Your task to perform on an android device: change the clock display to analog Image 0: 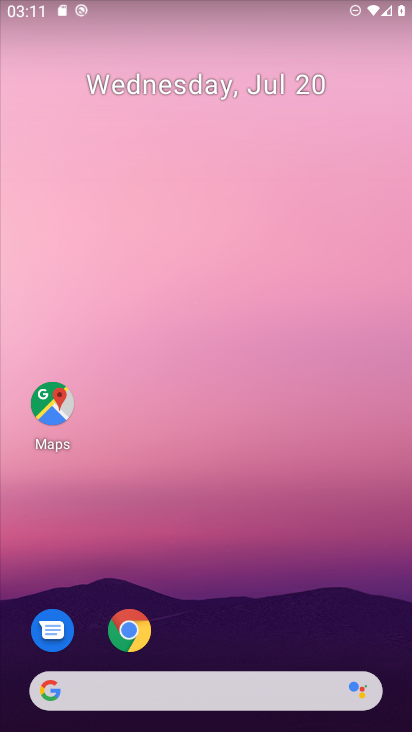
Step 0: drag from (282, 621) to (357, 109)
Your task to perform on an android device: change the clock display to analog Image 1: 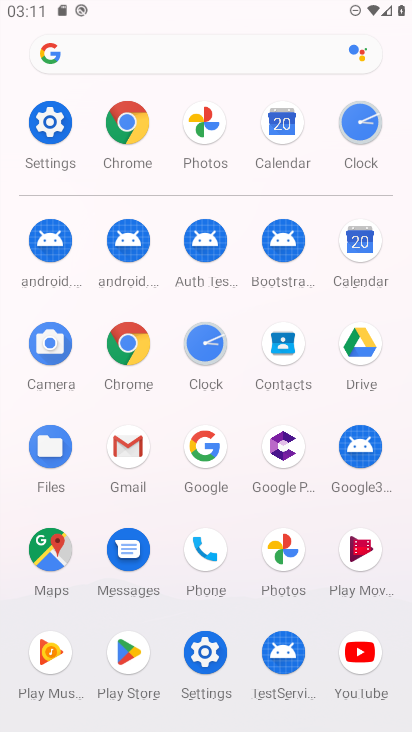
Step 1: click (216, 342)
Your task to perform on an android device: change the clock display to analog Image 2: 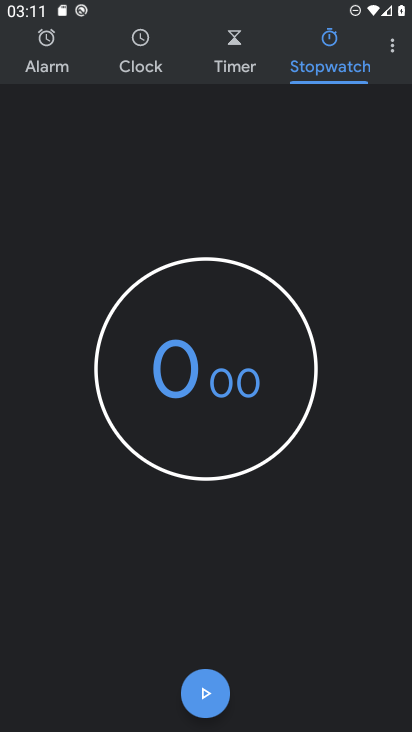
Step 2: click (391, 54)
Your task to perform on an android device: change the clock display to analog Image 3: 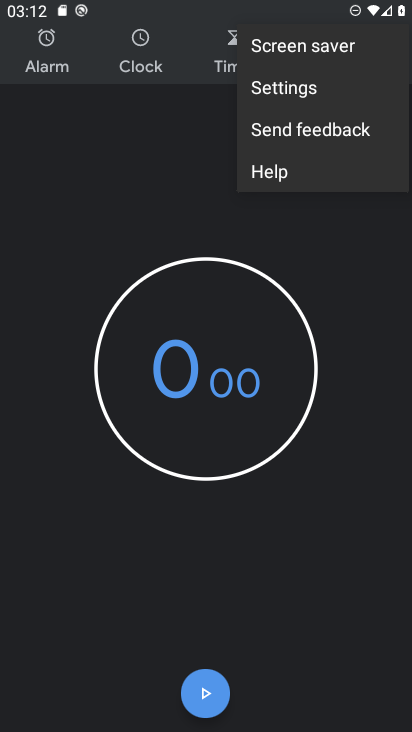
Step 3: click (347, 92)
Your task to perform on an android device: change the clock display to analog Image 4: 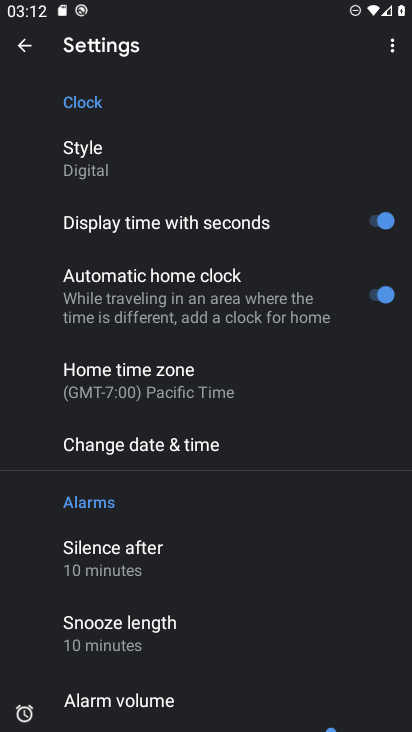
Step 4: drag from (339, 531) to (357, 443)
Your task to perform on an android device: change the clock display to analog Image 5: 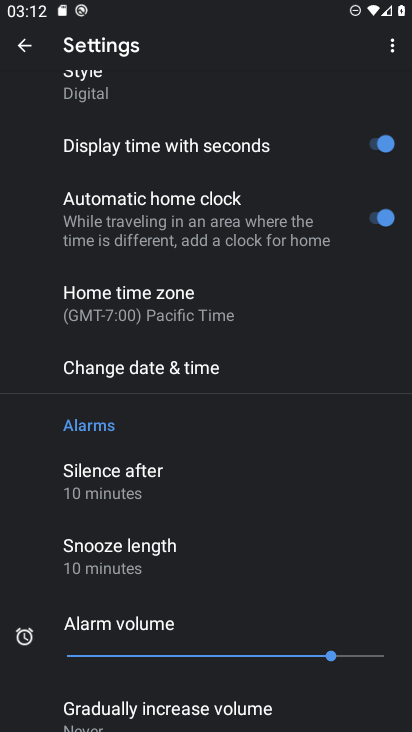
Step 5: drag from (327, 527) to (342, 446)
Your task to perform on an android device: change the clock display to analog Image 6: 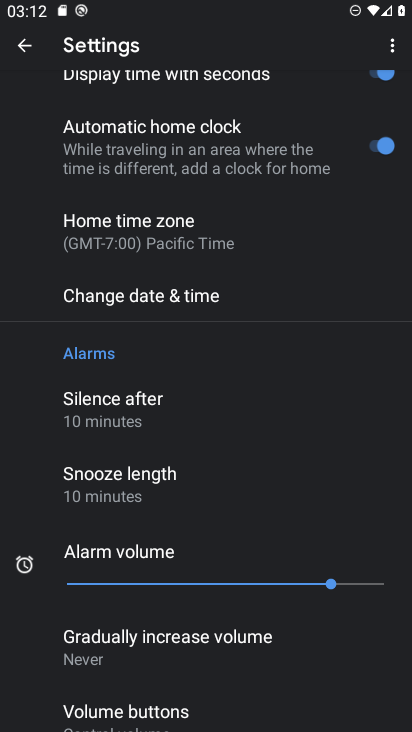
Step 6: drag from (309, 613) to (320, 532)
Your task to perform on an android device: change the clock display to analog Image 7: 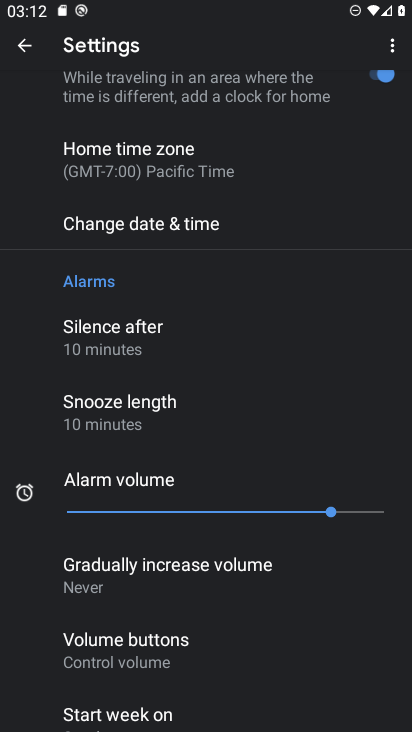
Step 7: drag from (311, 618) to (316, 552)
Your task to perform on an android device: change the clock display to analog Image 8: 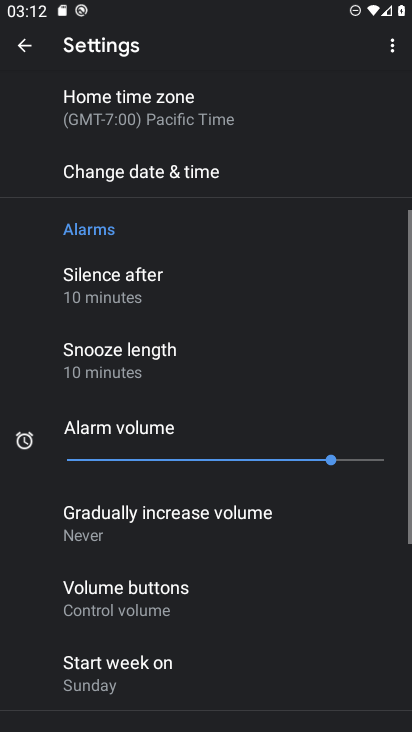
Step 8: drag from (304, 625) to (310, 540)
Your task to perform on an android device: change the clock display to analog Image 9: 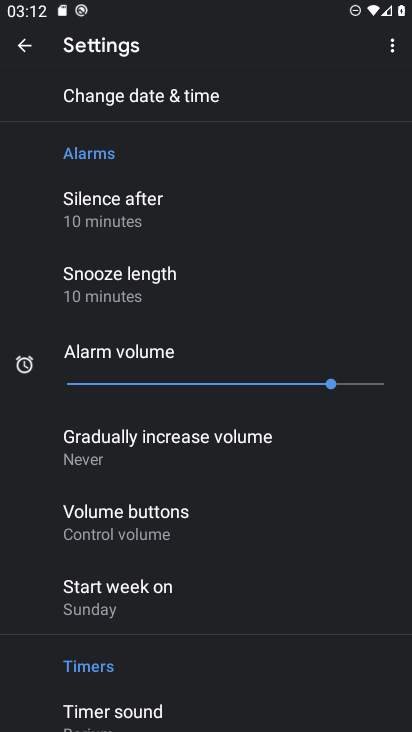
Step 9: drag from (298, 606) to (298, 544)
Your task to perform on an android device: change the clock display to analog Image 10: 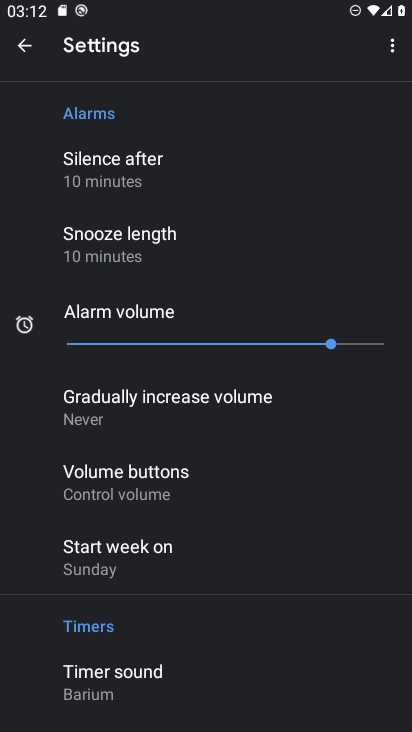
Step 10: drag from (292, 633) to (293, 566)
Your task to perform on an android device: change the clock display to analog Image 11: 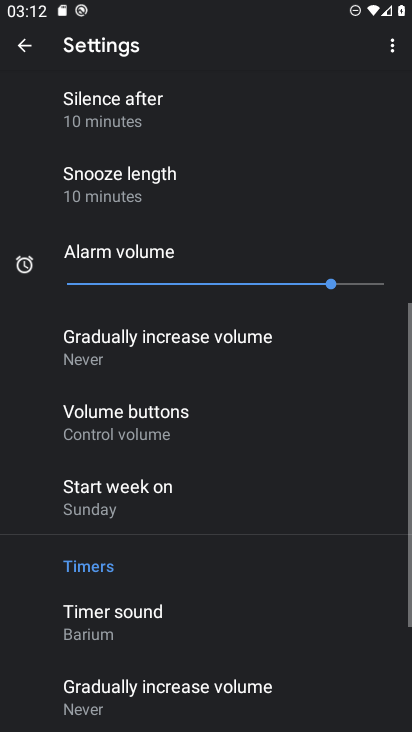
Step 11: drag from (312, 431) to (316, 524)
Your task to perform on an android device: change the clock display to analog Image 12: 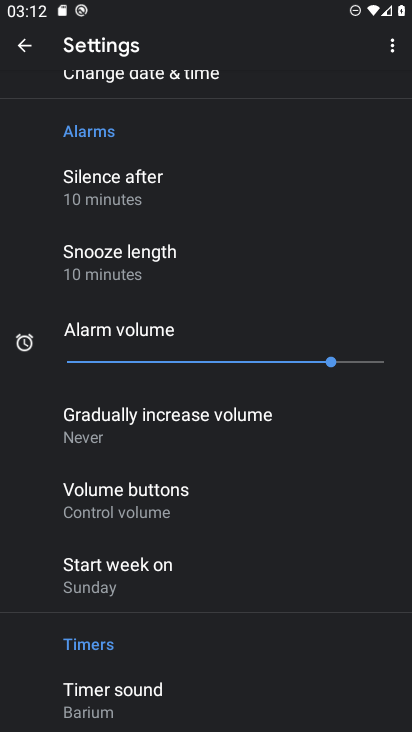
Step 12: drag from (338, 428) to (335, 520)
Your task to perform on an android device: change the clock display to analog Image 13: 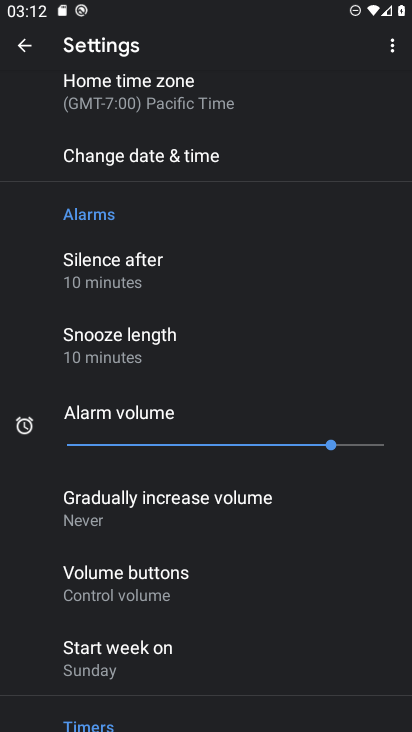
Step 13: drag from (332, 387) to (332, 510)
Your task to perform on an android device: change the clock display to analog Image 14: 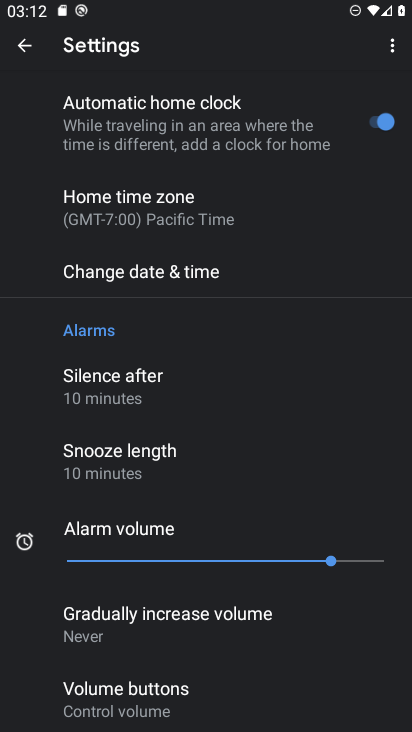
Step 14: drag from (327, 373) to (322, 480)
Your task to perform on an android device: change the clock display to analog Image 15: 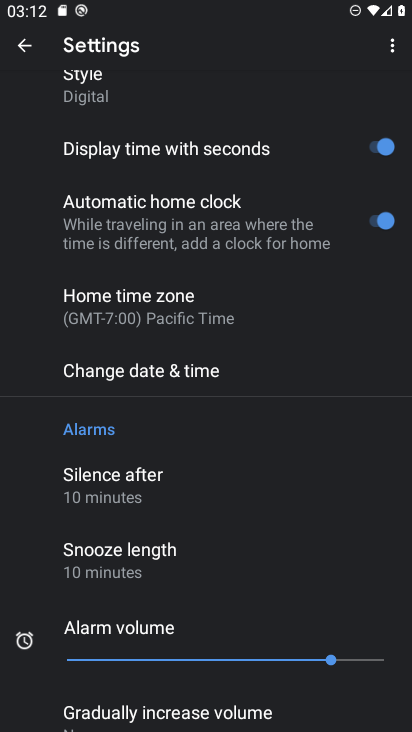
Step 15: drag from (327, 380) to (331, 477)
Your task to perform on an android device: change the clock display to analog Image 16: 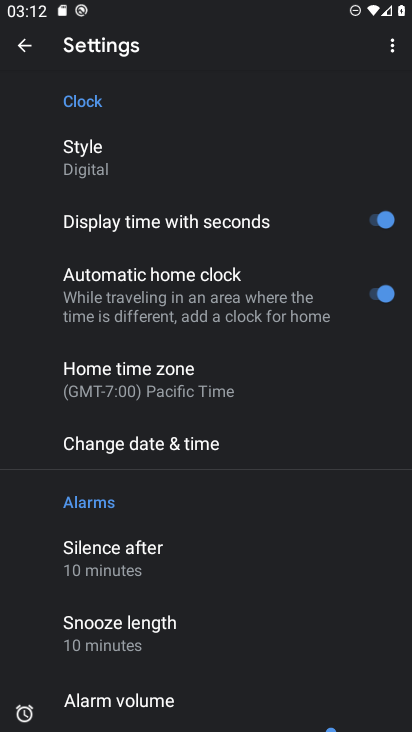
Step 16: drag from (326, 372) to (318, 489)
Your task to perform on an android device: change the clock display to analog Image 17: 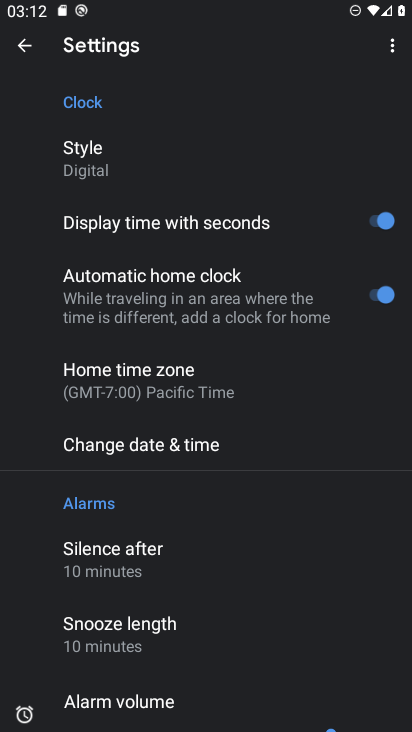
Step 17: click (123, 172)
Your task to perform on an android device: change the clock display to analog Image 18: 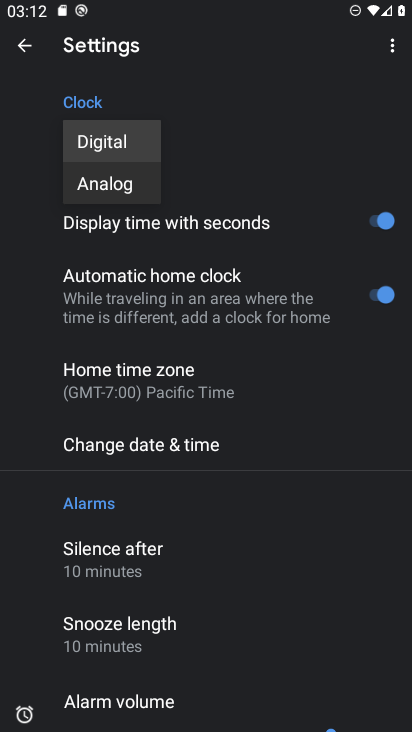
Step 18: click (123, 185)
Your task to perform on an android device: change the clock display to analog Image 19: 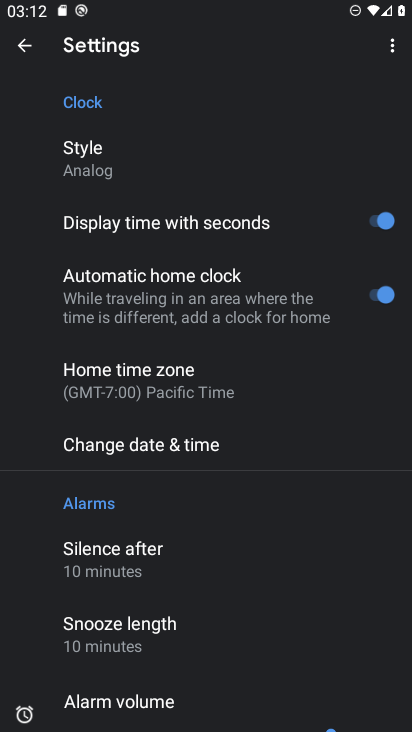
Step 19: task complete